Your task to perform on an android device: manage bookmarks in the chrome app Image 0: 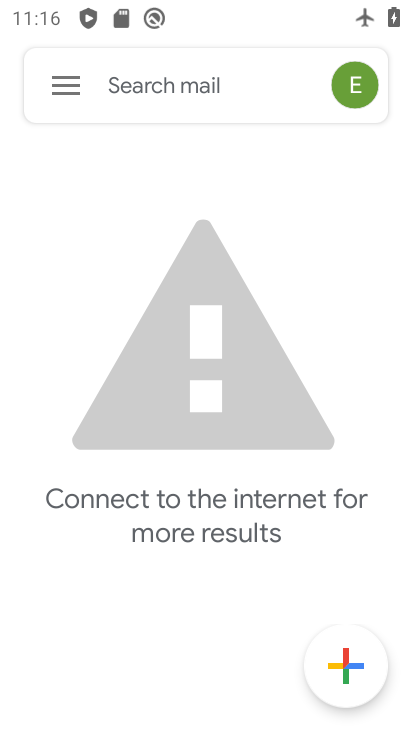
Step 0: press home button
Your task to perform on an android device: manage bookmarks in the chrome app Image 1: 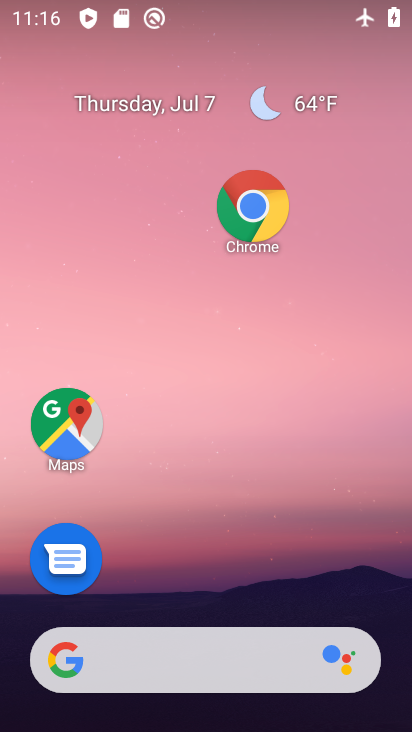
Step 1: click (251, 210)
Your task to perform on an android device: manage bookmarks in the chrome app Image 2: 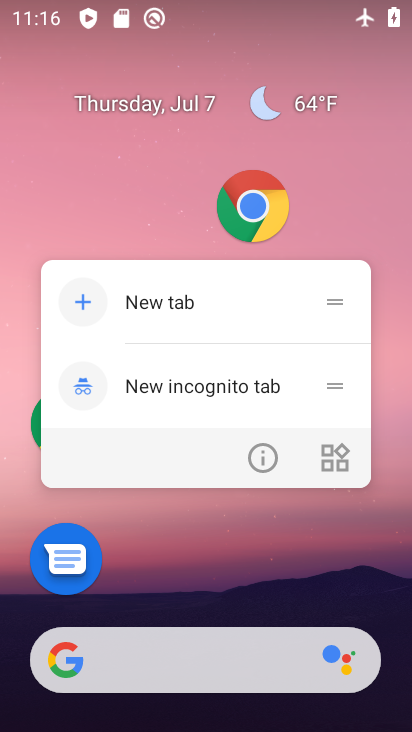
Step 2: click (251, 210)
Your task to perform on an android device: manage bookmarks in the chrome app Image 3: 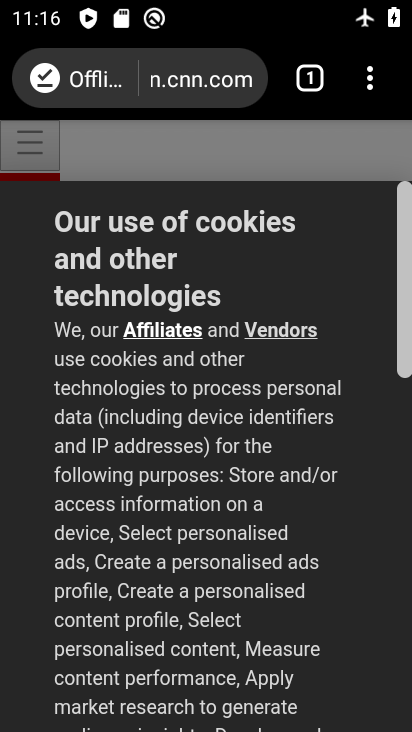
Step 3: click (375, 76)
Your task to perform on an android device: manage bookmarks in the chrome app Image 4: 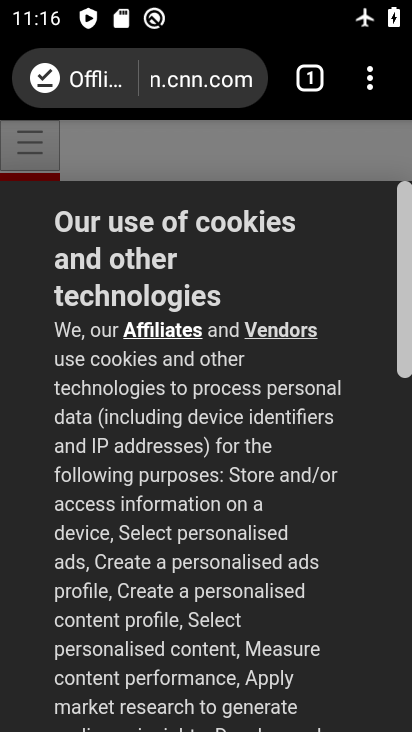
Step 4: click (367, 76)
Your task to perform on an android device: manage bookmarks in the chrome app Image 5: 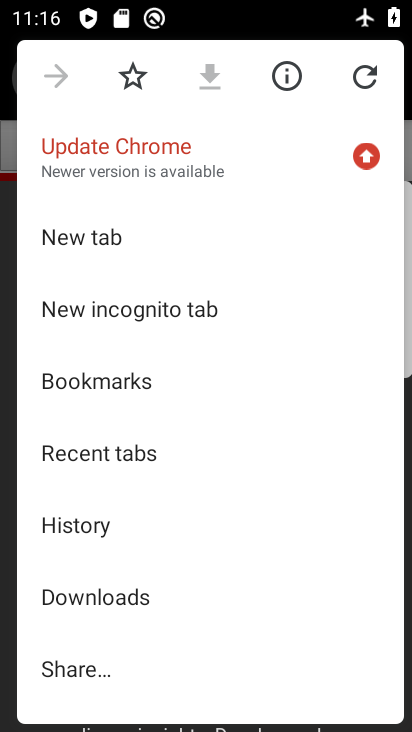
Step 5: drag from (102, 686) to (77, 382)
Your task to perform on an android device: manage bookmarks in the chrome app Image 6: 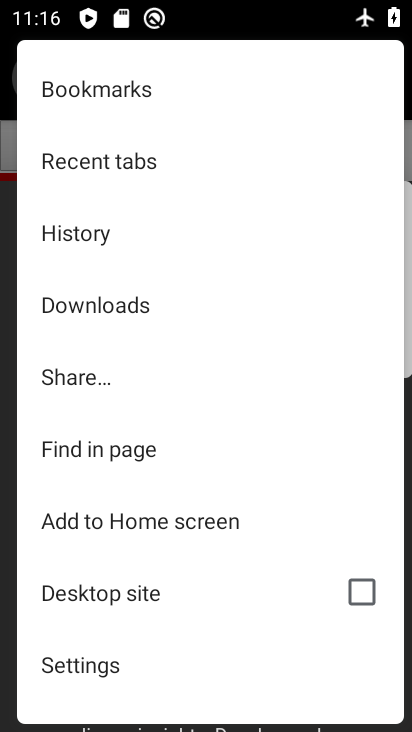
Step 6: click (97, 90)
Your task to perform on an android device: manage bookmarks in the chrome app Image 7: 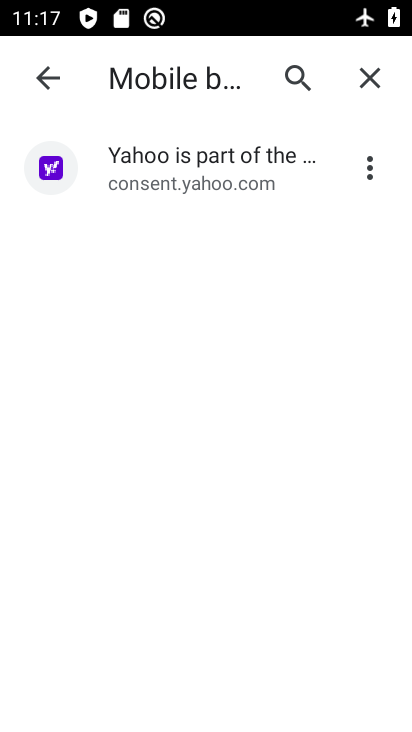
Step 7: task complete